Your task to perform on an android device: turn off smart reply in the gmail app Image 0: 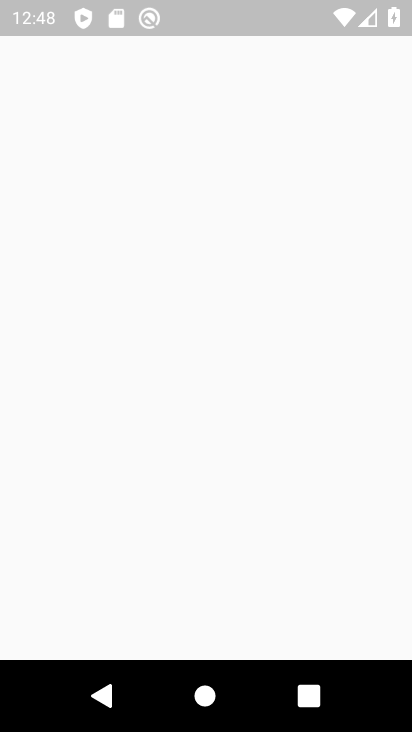
Step 0: press home button
Your task to perform on an android device: turn off smart reply in the gmail app Image 1: 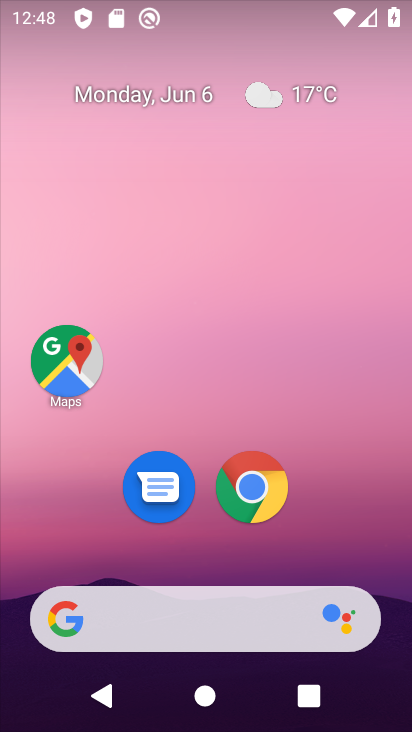
Step 1: drag from (87, 583) to (184, 48)
Your task to perform on an android device: turn off smart reply in the gmail app Image 2: 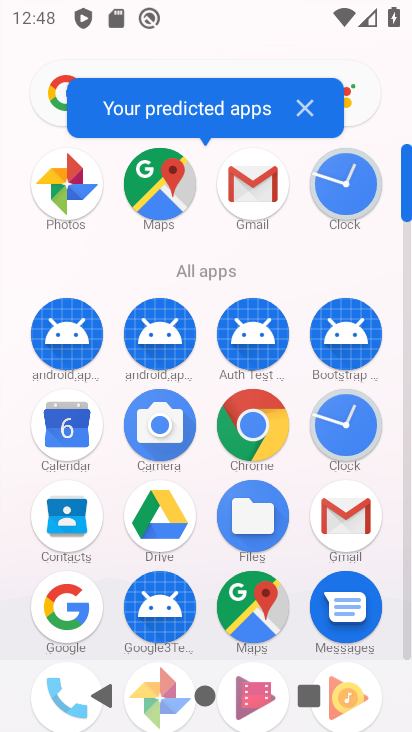
Step 2: click (363, 514)
Your task to perform on an android device: turn off smart reply in the gmail app Image 3: 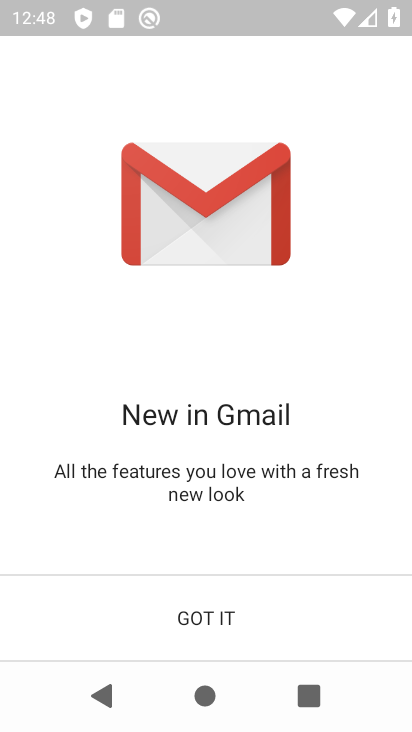
Step 3: click (270, 641)
Your task to perform on an android device: turn off smart reply in the gmail app Image 4: 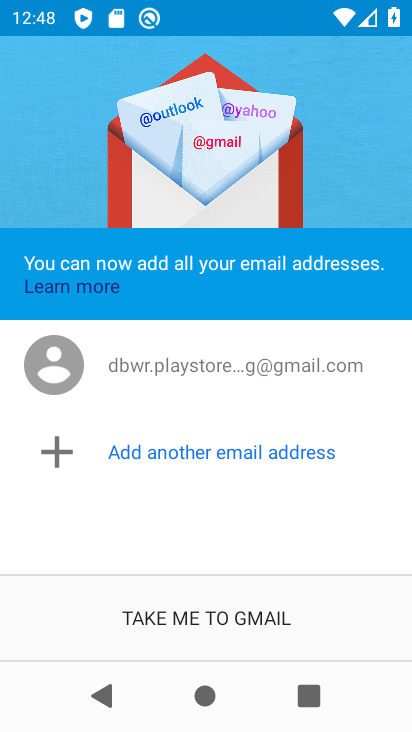
Step 4: click (269, 640)
Your task to perform on an android device: turn off smart reply in the gmail app Image 5: 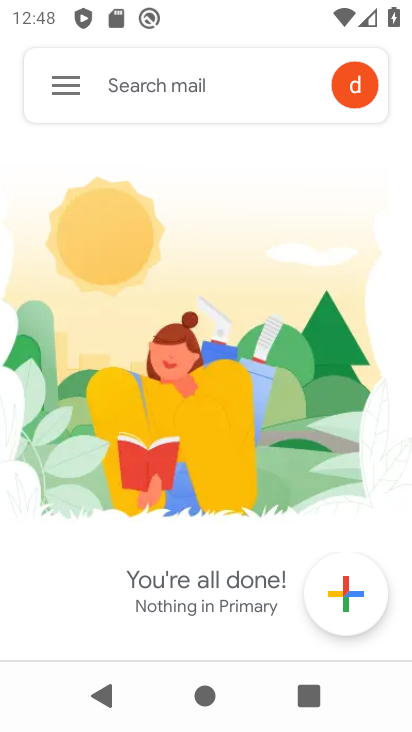
Step 5: click (76, 90)
Your task to perform on an android device: turn off smart reply in the gmail app Image 6: 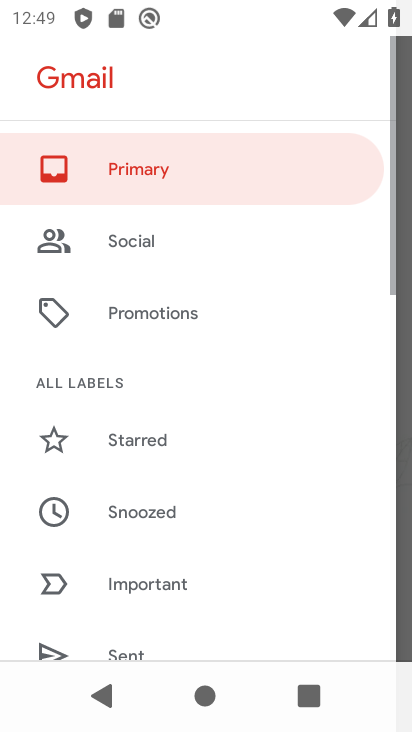
Step 6: drag from (113, 553) to (181, 231)
Your task to perform on an android device: turn off smart reply in the gmail app Image 7: 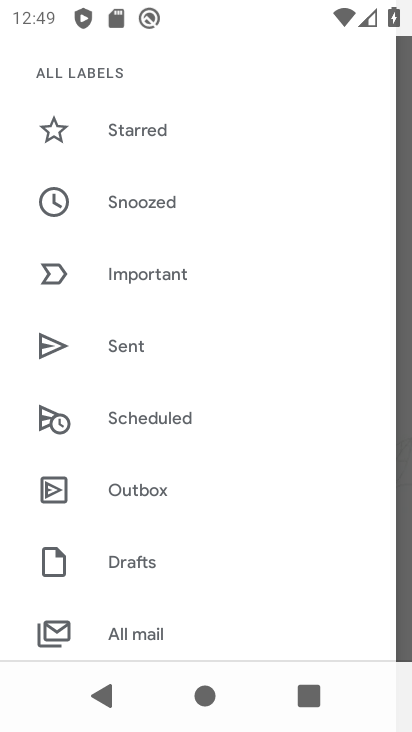
Step 7: drag from (169, 621) to (241, 216)
Your task to perform on an android device: turn off smart reply in the gmail app Image 8: 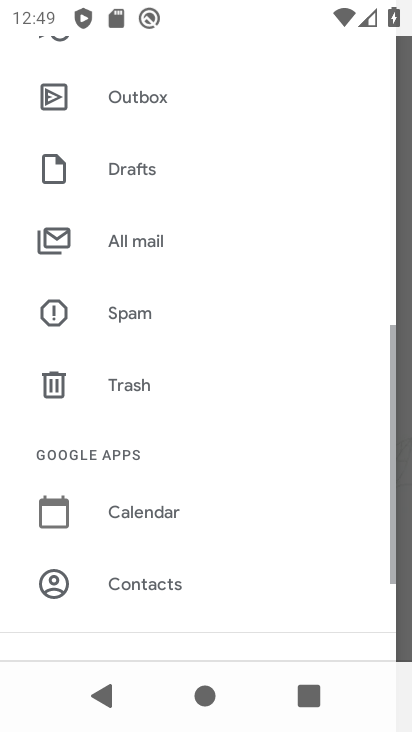
Step 8: drag from (197, 464) to (255, 270)
Your task to perform on an android device: turn off smart reply in the gmail app Image 9: 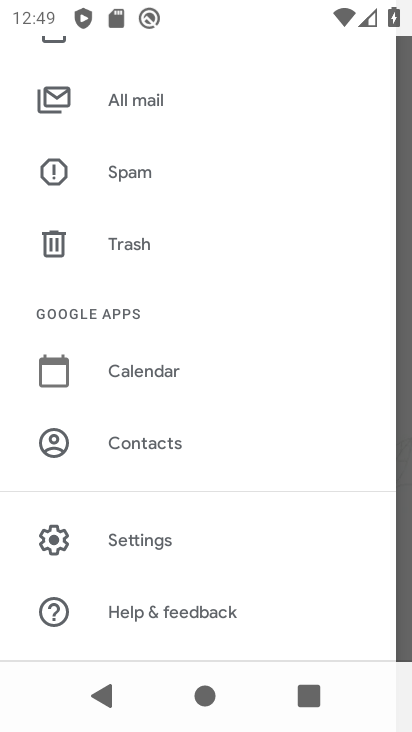
Step 9: click (177, 550)
Your task to perform on an android device: turn off smart reply in the gmail app Image 10: 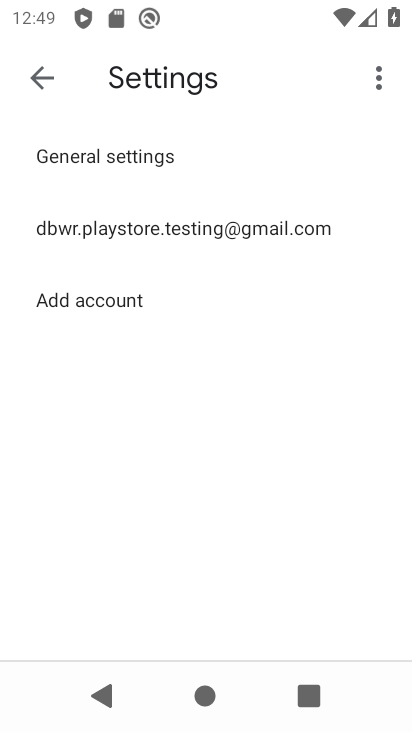
Step 10: click (244, 258)
Your task to perform on an android device: turn off smart reply in the gmail app Image 11: 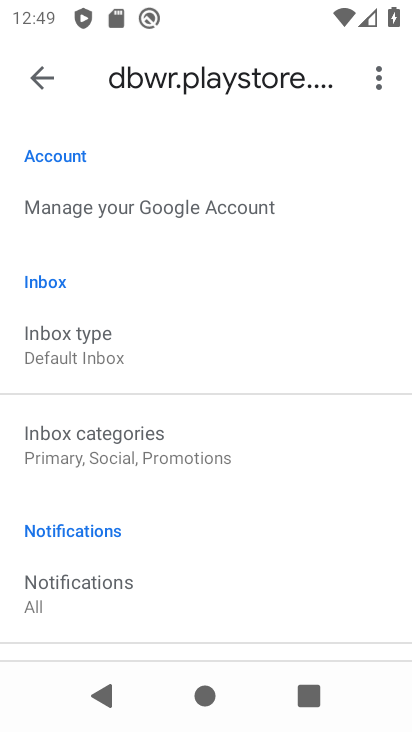
Step 11: drag from (248, 571) to (369, 153)
Your task to perform on an android device: turn off smart reply in the gmail app Image 12: 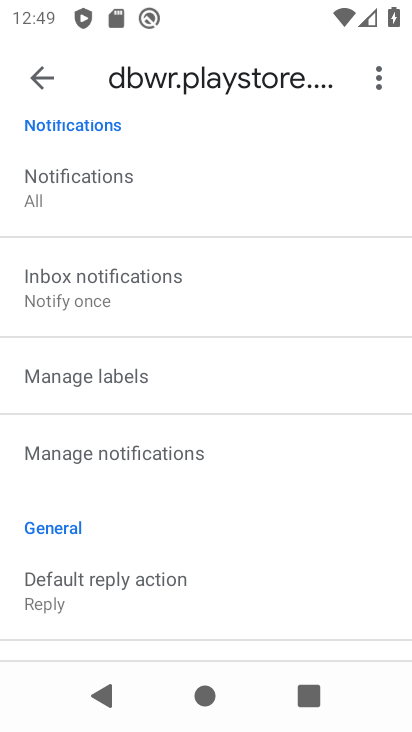
Step 12: drag from (215, 521) to (297, 39)
Your task to perform on an android device: turn off smart reply in the gmail app Image 13: 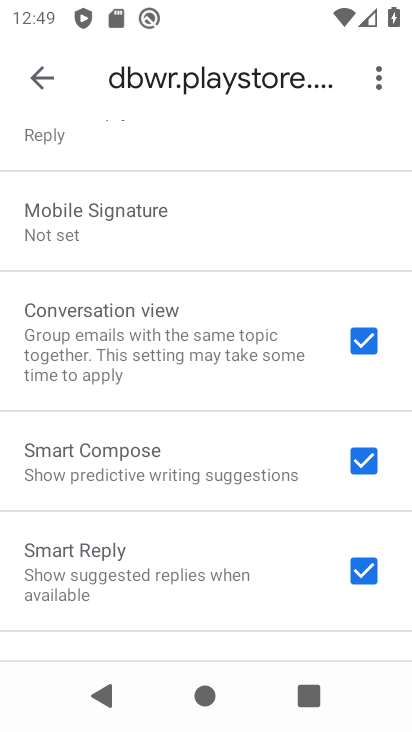
Step 13: click (365, 575)
Your task to perform on an android device: turn off smart reply in the gmail app Image 14: 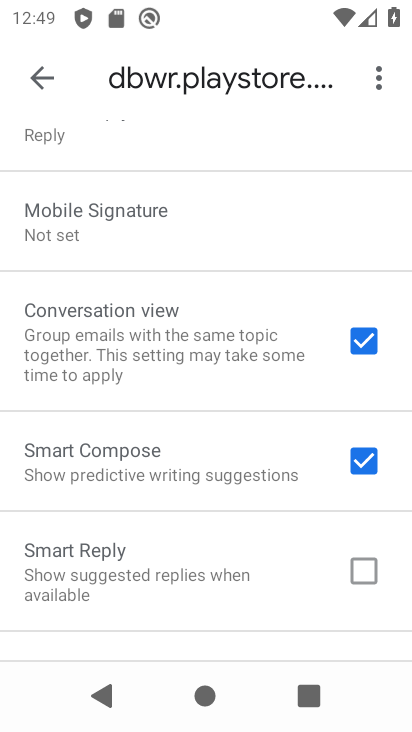
Step 14: task complete